Your task to perform on an android device: Turn off the flashlight Image 0: 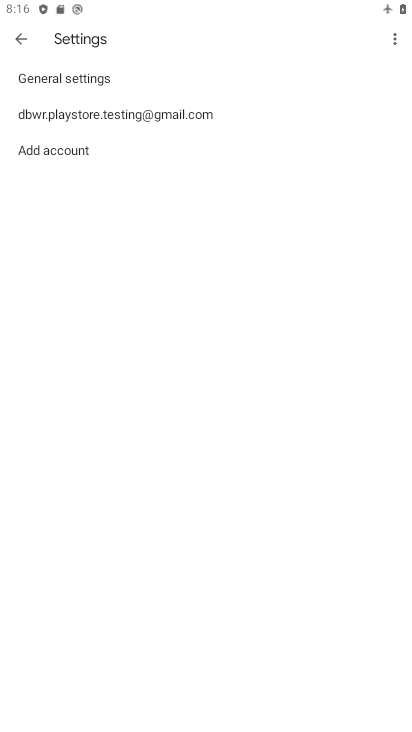
Step 0: press home button
Your task to perform on an android device: Turn off the flashlight Image 1: 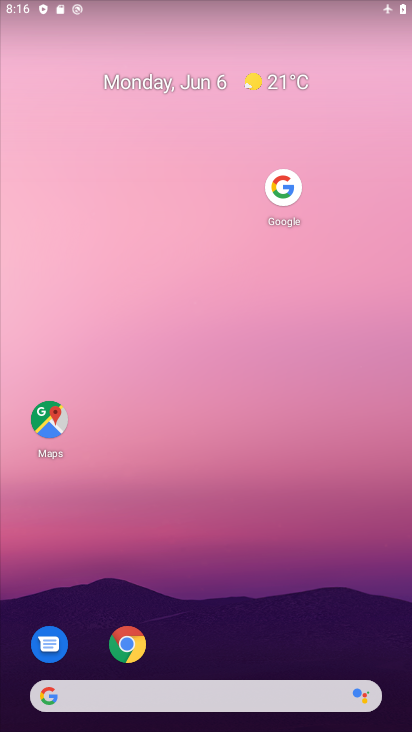
Step 1: drag from (231, 671) to (192, 52)
Your task to perform on an android device: Turn off the flashlight Image 2: 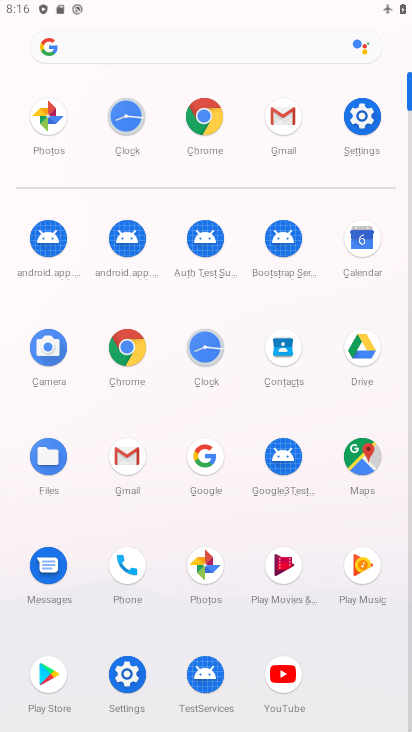
Step 2: click (359, 119)
Your task to perform on an android device: Turn off the flashlight Image 3: 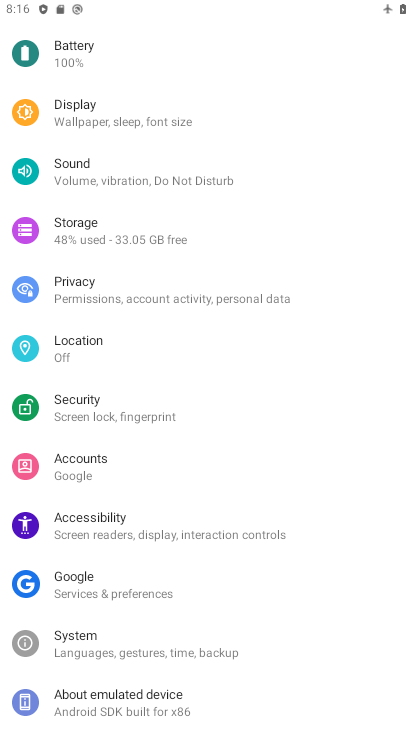
Step 3: task complete